Your task to perform on an android device: turn on wifi Image 0: 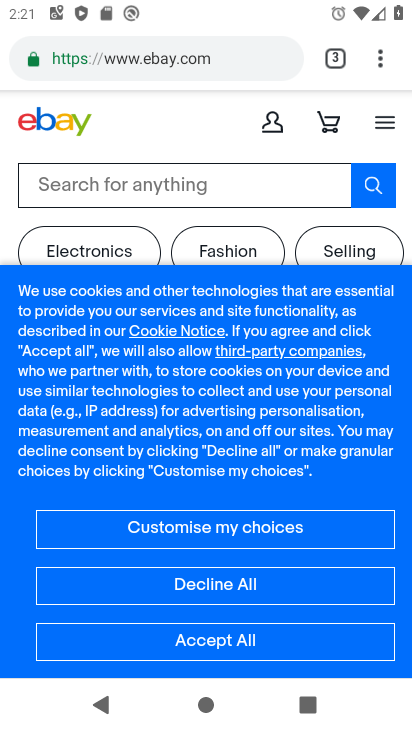
Step 0: press home button
Your task to perform on an android device: turn on wifi Image 1: 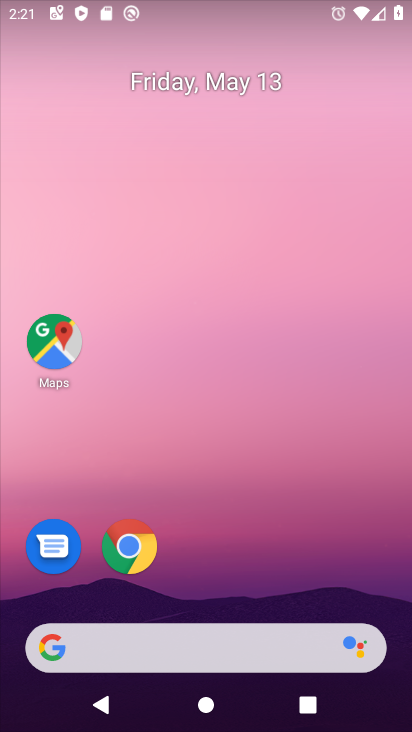
Step 1: drag from (279, 558) to (303, 129)
Your task to perform on an android device: turn on wifi Image 2: 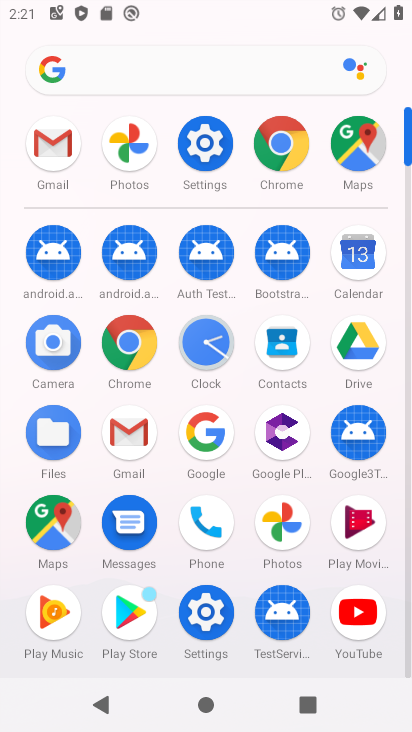
Step 2: click (214, 163)
Your task to perform on an android device: turn on wifi Image 3: 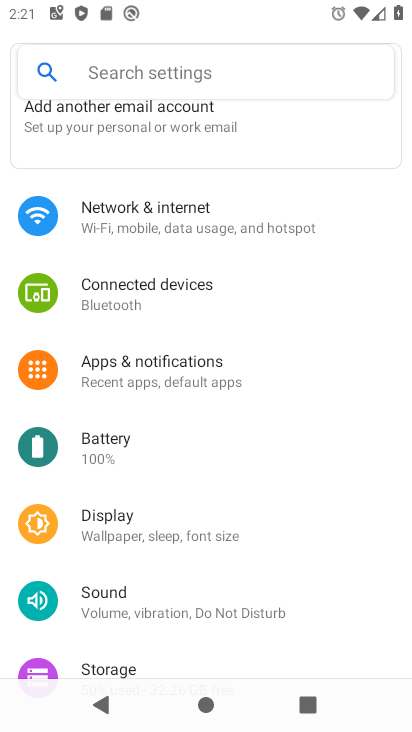
Step 3: click (185, 224)
Your task to perform on an android device: turn on wifi Image 4: 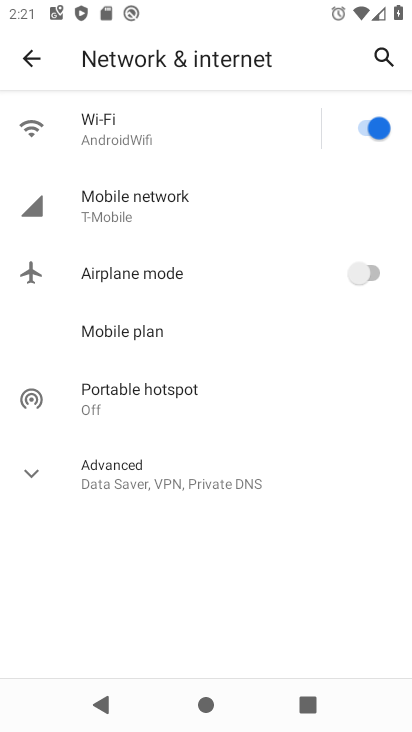
Step 4: click (191, 129)
Your task to perform on an android device: turn on wifi Image 5: 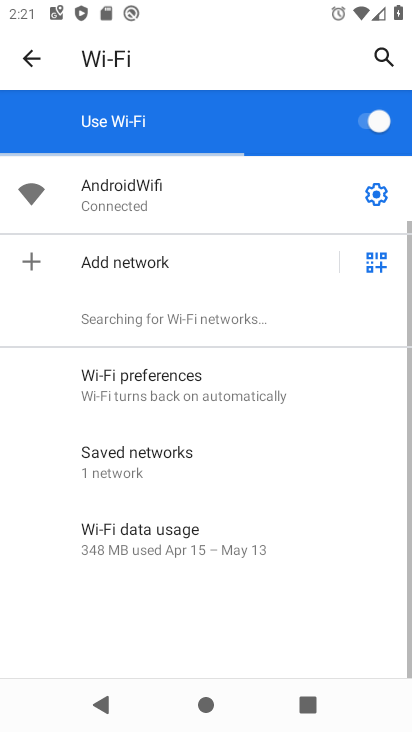
Step 5: task complete